Your task to perform on an android device: turn off picture-in-picture Image 0: 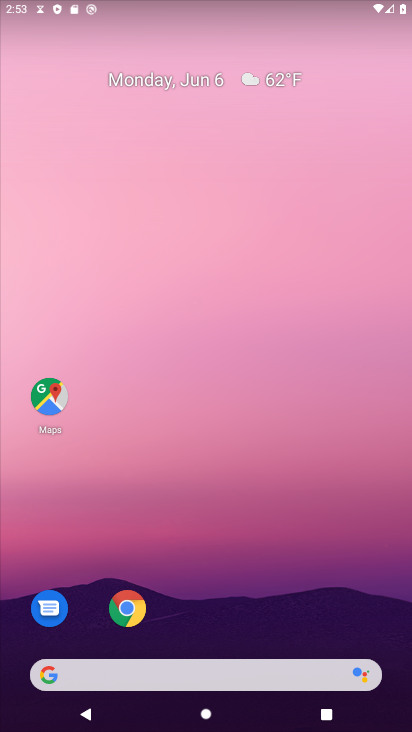
Step 0: click (119, 619)
Your task to perform on an android device: turn off picture-in-picture Image 1: 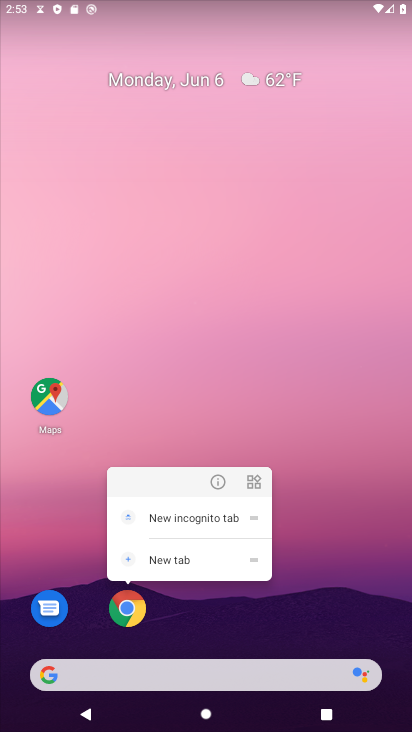
Step 1: click (216, 484)
Your task to perform on an android device: turn off picture-in-picture Image 2: 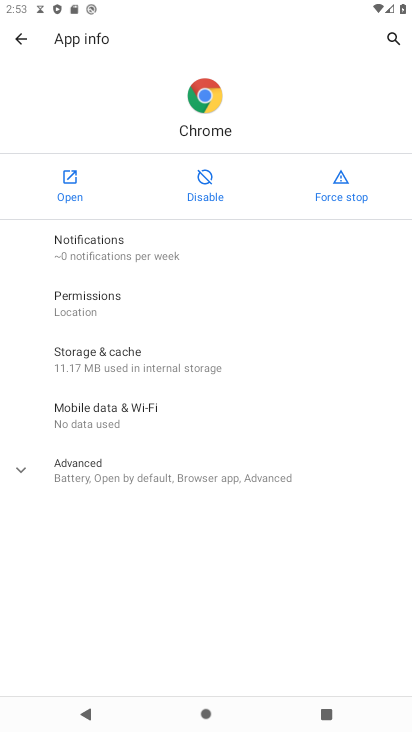
Step 2: click (94, 463)
Your task to perform on an android device: turn off picture-in-picture Image 3: 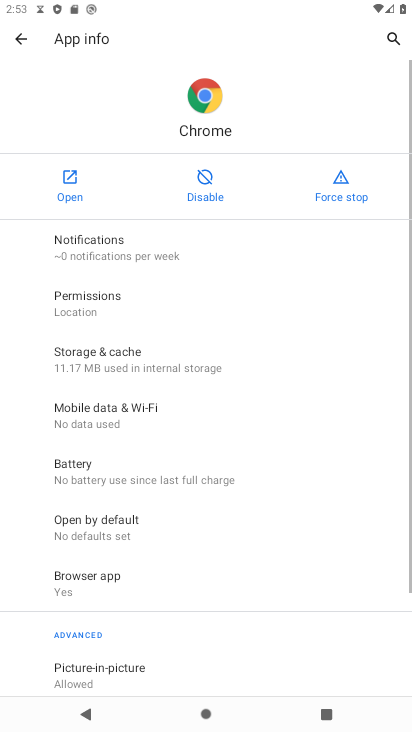
Step 3: drag from (131, 512) to (136, 190)
Your task to perform on an android device: turn off picture-in-picture Image 4: 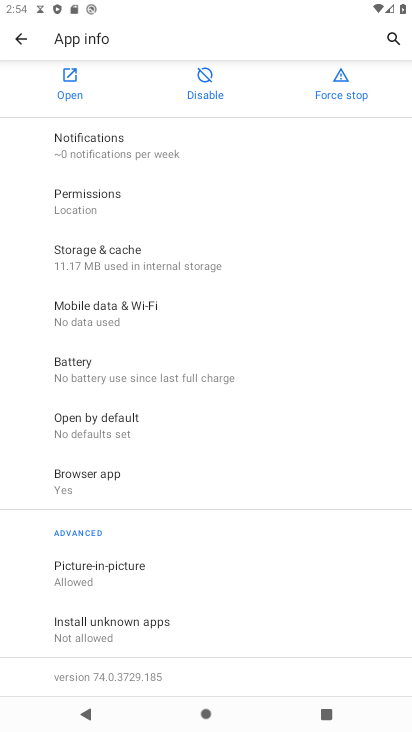
Step 4: click (74, 574)
Your task to perform on an android device: turn off picture-in-picture Image 5: 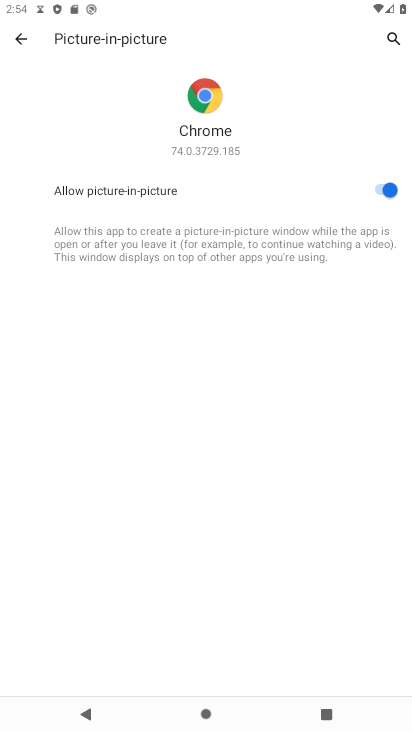
Step 5: click (398, 194)
Your task to perform on an android device: turn off picture-in-picture Image 6: 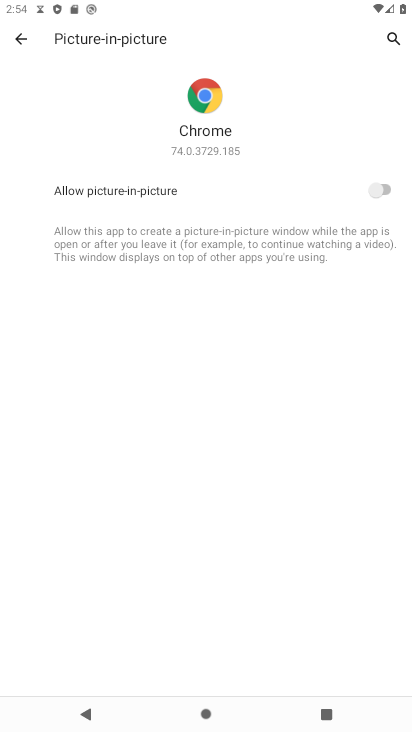
Step 6: task complete